Your task to perform on an android device: uninstall "YouTube Kids" Image 0: 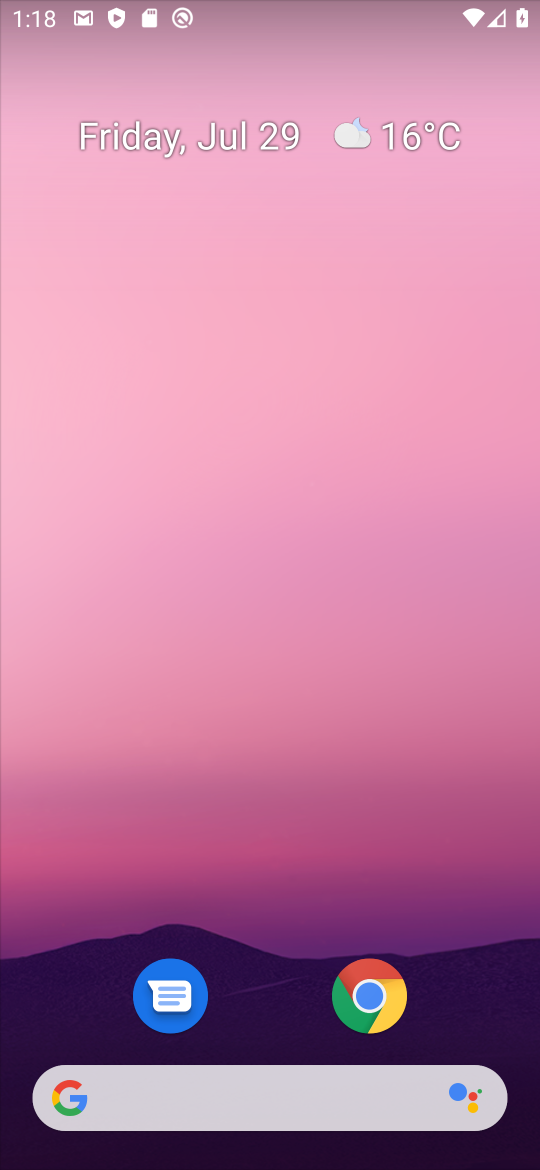
Step 0: drag from (271, 1065) to (329, 137)
Your task to perform on an android device: uninstall "YouTube Kids" Image 1: 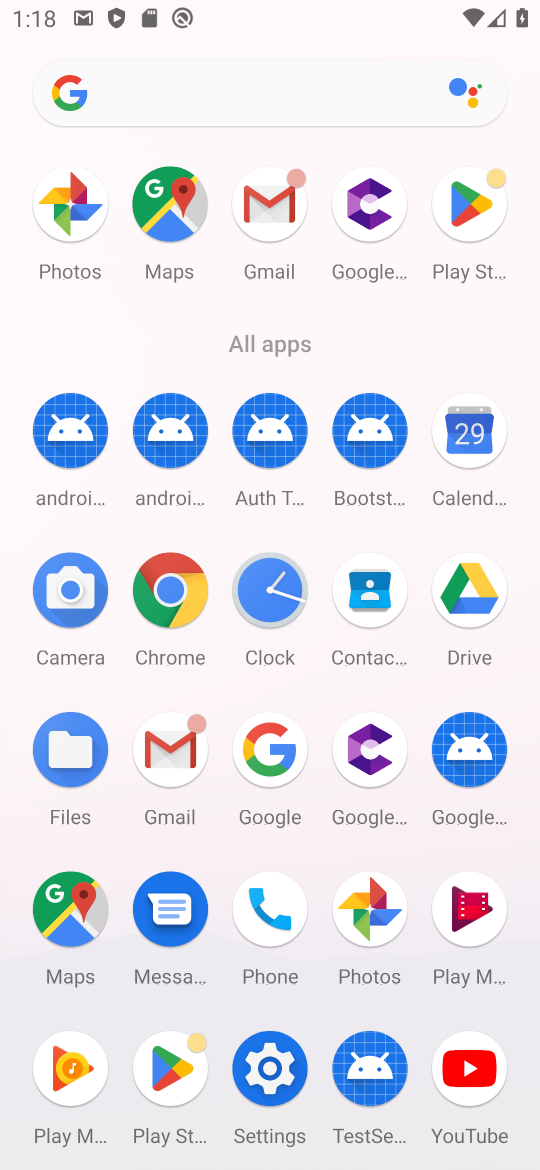
Step 1: press home button
Your task to perform on an android device: uninstall "YouTube Kids" Image 2: 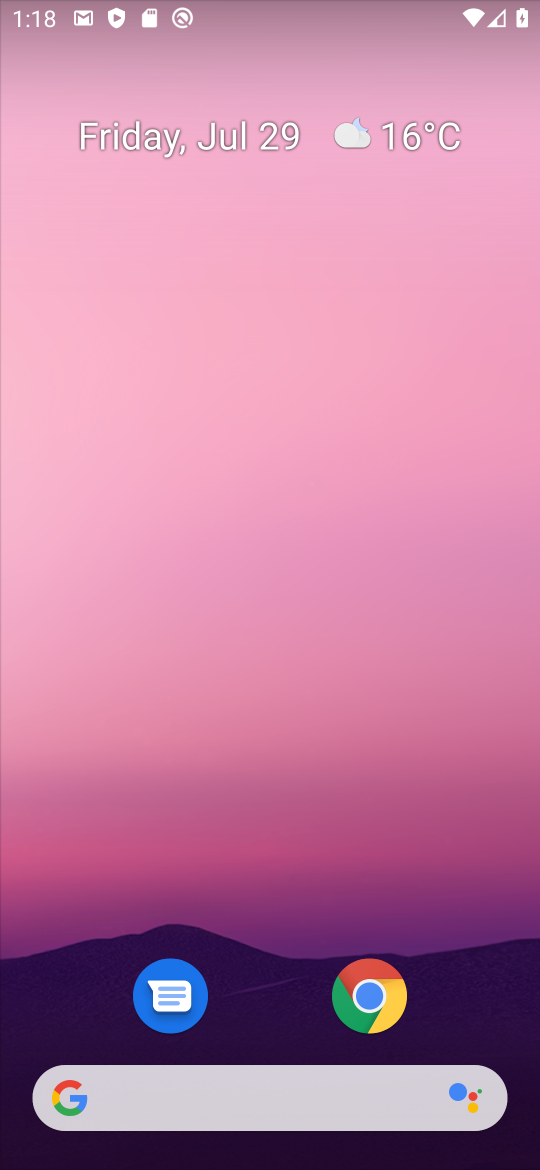
Step 2: drag from (254, 1022) to (270, 252)
Your task to perform on an android device: uninstall "YouTube Kids" Image 3: 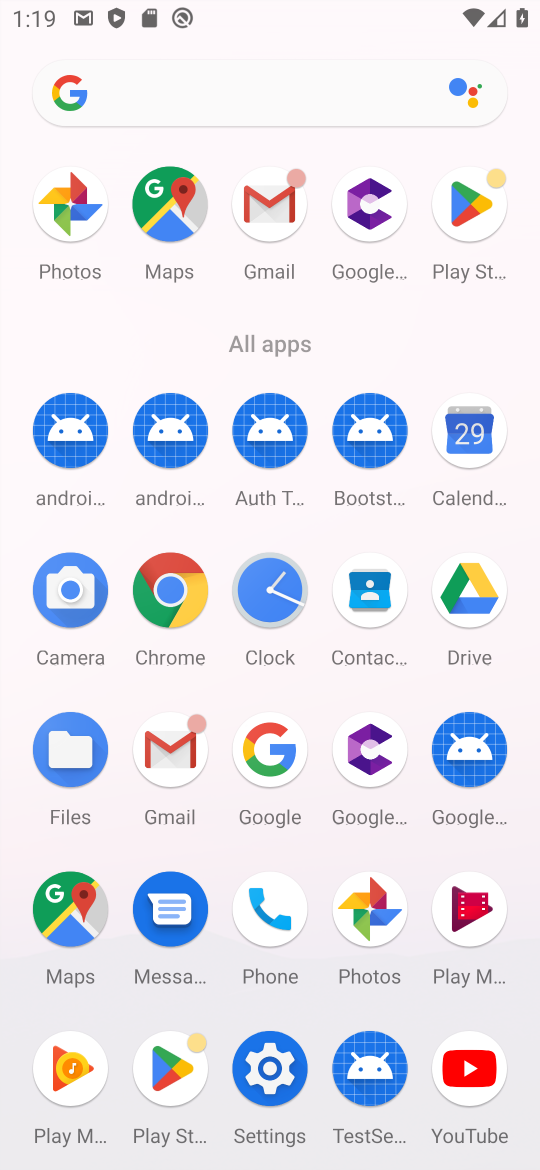
Step 3: click (476, 212)
Your task to perform on an android device: uninstall "YouTube Kids" Image 4: 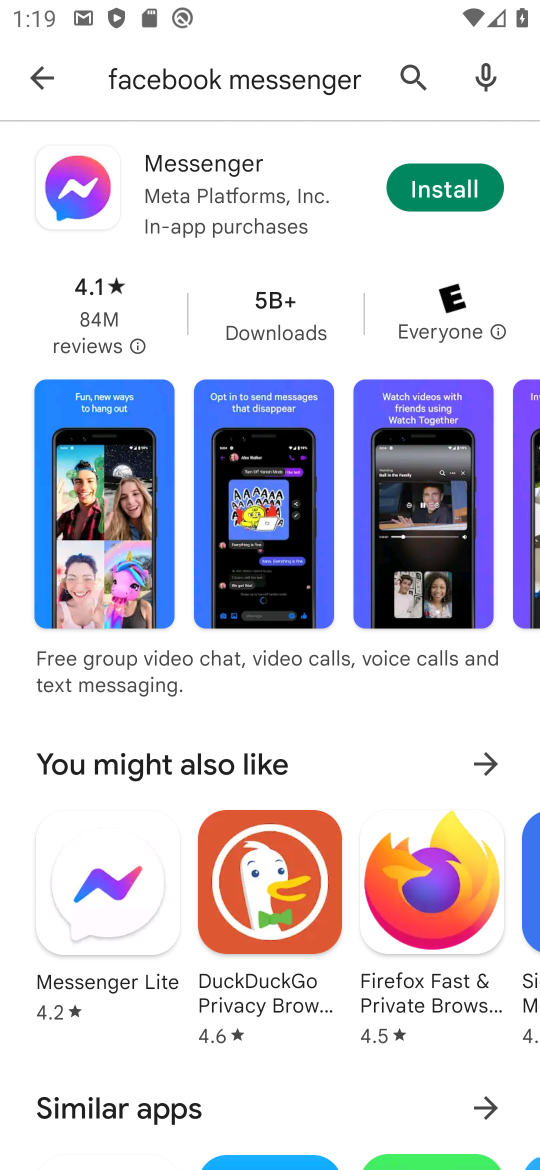
Step 4: click (41, 73)
Your task to perform on an android device: uninstall "YouTube Kids" Image 5: 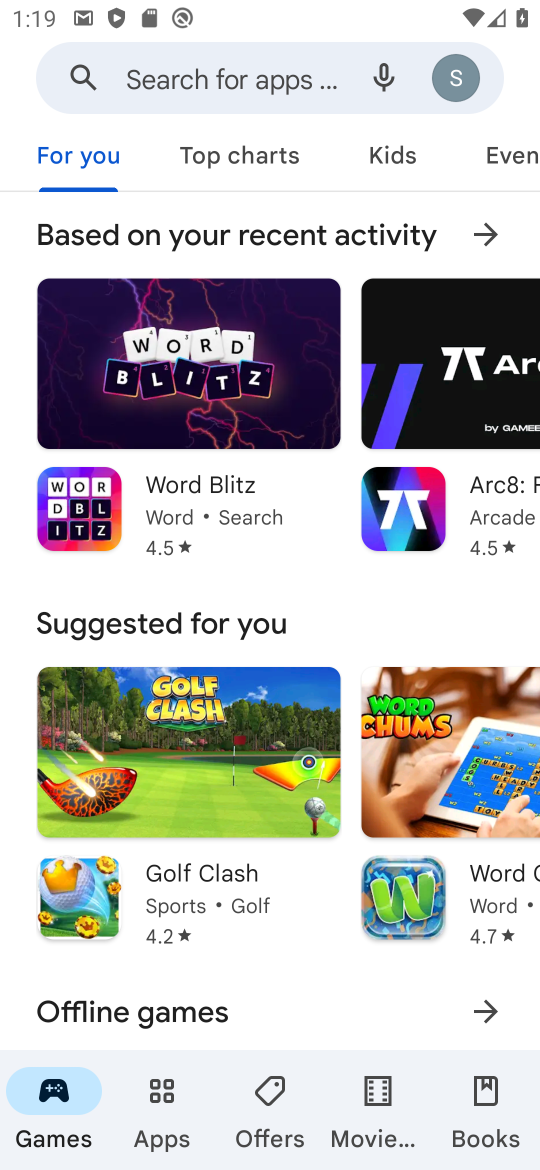
Step 5: click (166, 74)
Your task to perform on an android device: uninstall "YouTube Kids" Image 6: 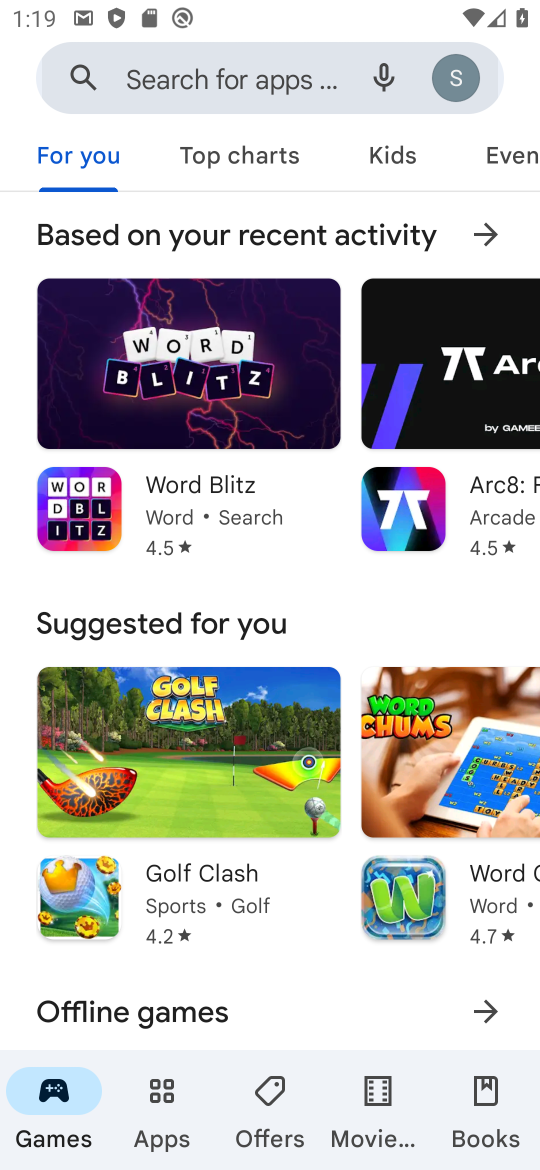
Step 6: click (166, 74)
Your task to perform on an android device: uninstall "YouTube Kids" Image 7: 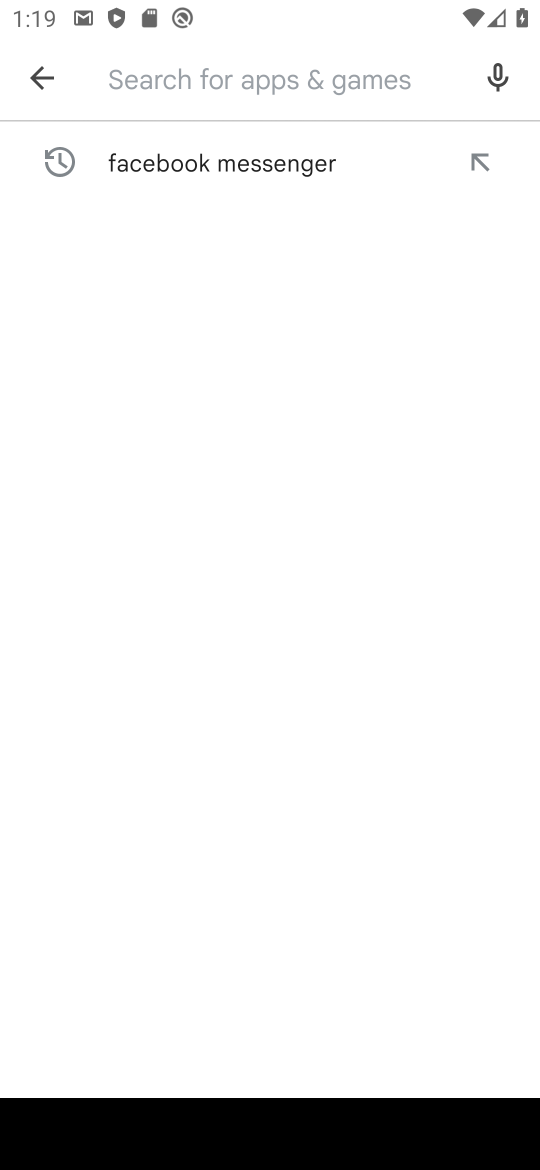
Step 7: type "YouTube Kids"
Your task to perform on an android device: uninstall "YouTube Kids" Image 8: 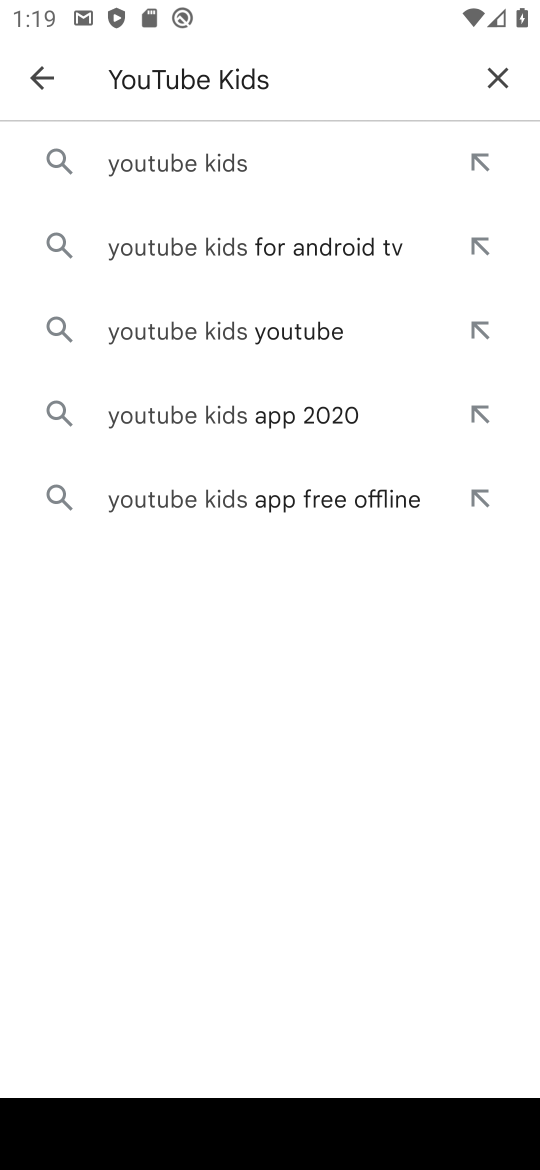
Step 8: click (213, 165)
Your task to perform on an android device: uninstall "YouTube Kids" Image 9: 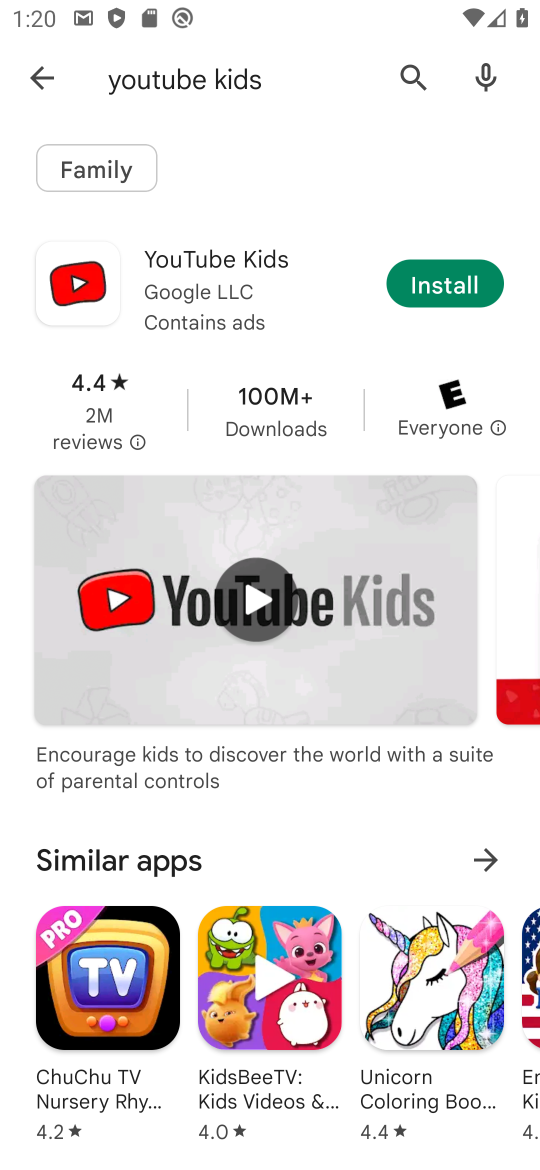
Step 9: task complete